Your task to perform on an android device: add a contact in the contacts app Image 0: 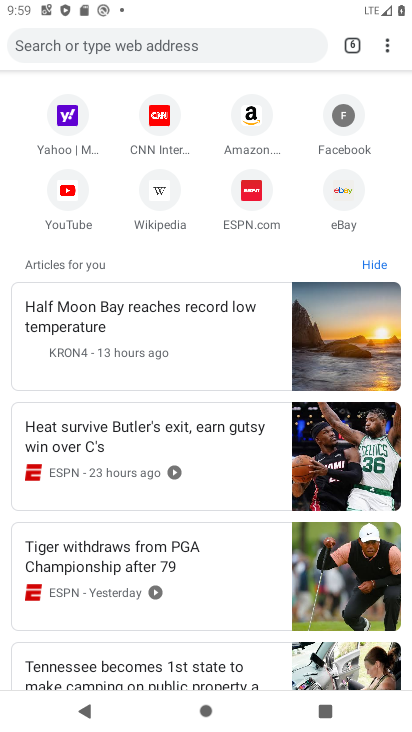
Step 0: press home button
Your task to perform on an android device: add a contact in the contacts app Image 1: 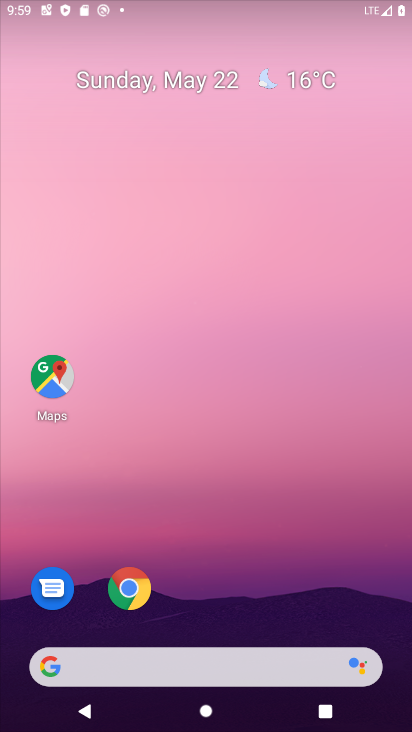
Step 1: drag from (220, 577) to (278, 186)
Your task to perform on an android device: add a contact in the contacts app Image 2: 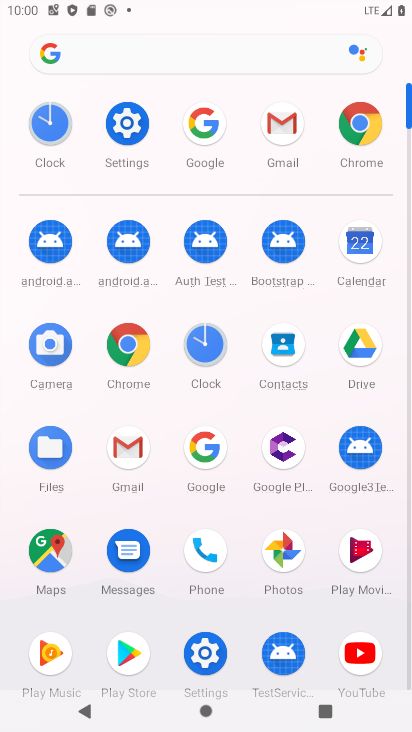
Step 2: click (263, 359)
Your task to perform on an android device: add a contact in the contacts app Image 3: 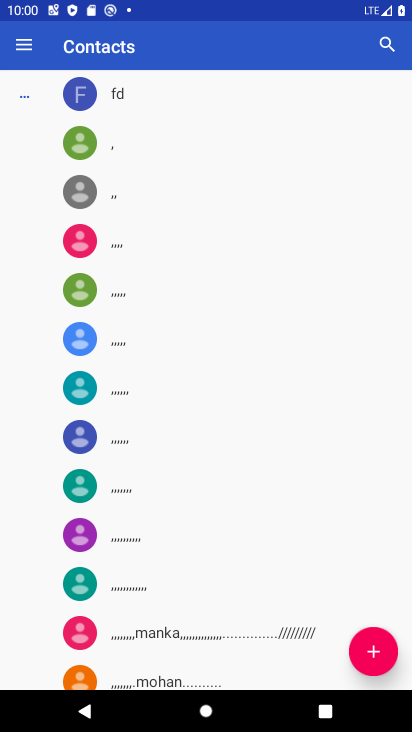
Step 3: click (374, 660)
Your task to perform on an android device: add a contact in the contacts app Image 4: 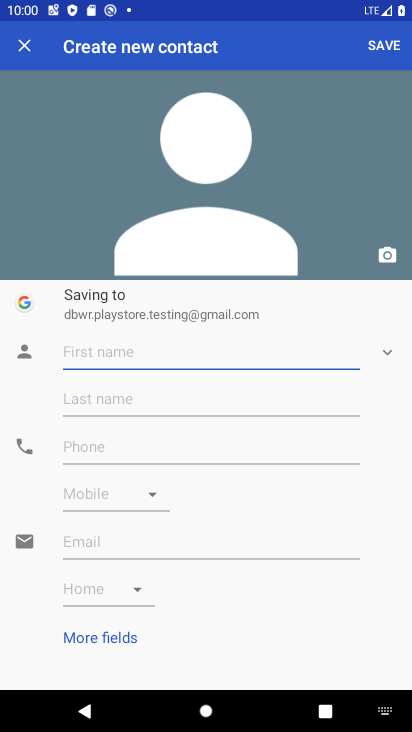
Step 4: type "gnfgngf"
Your task to perform on an android device: add a contact in the contacts app Image 5: 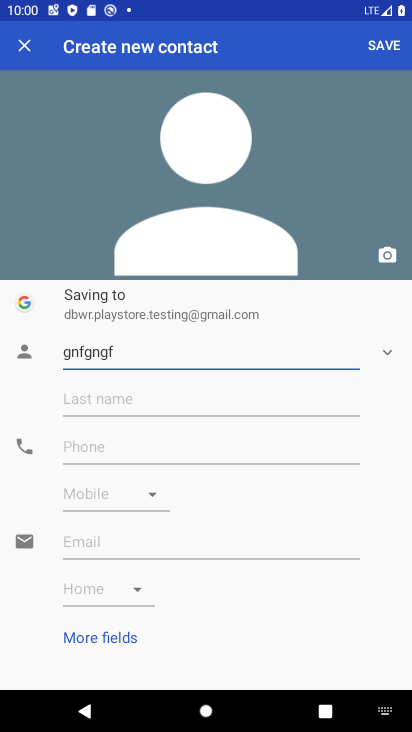
Step 5: click (86, 448)
Your task to perform on an android device: add a contact in the contacts app Image 6: 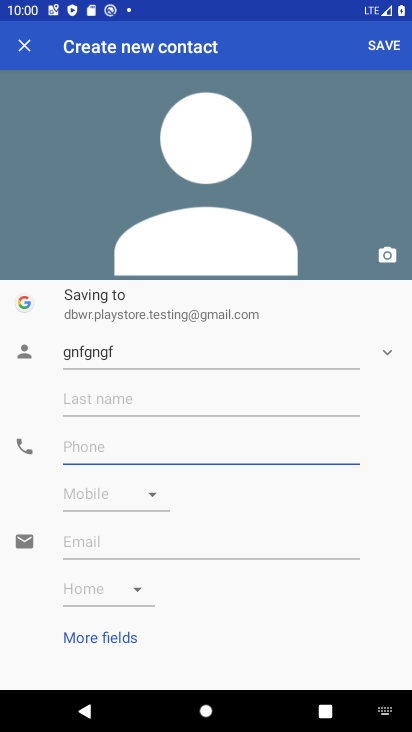
Step 6: type "7564767"
Your task to perform on an android device: add a contact in the contacts app Image 7: 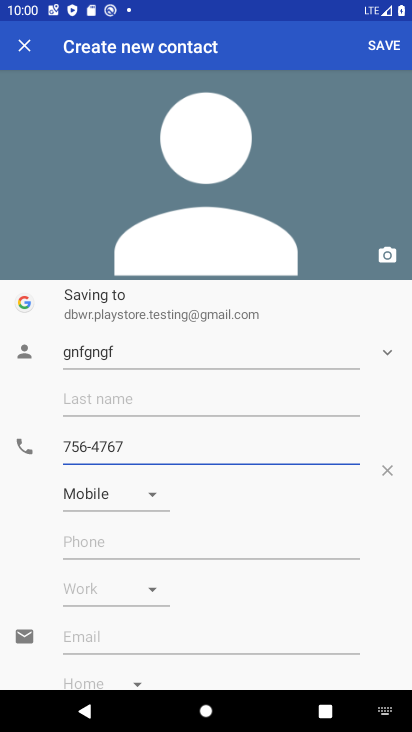
Step 7: click (382, 48)
Your task to perform on an android device: add a contact in the contacts app Image 8: 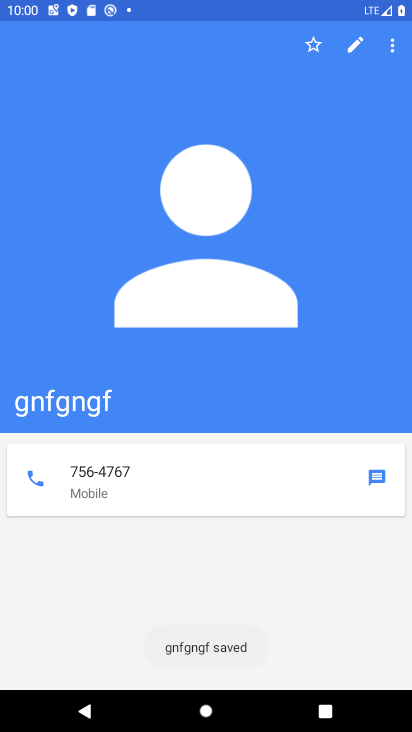
Step 8: task complete